Your task to perform on an android device: Search for pizza restaurants on Maps Image 0: 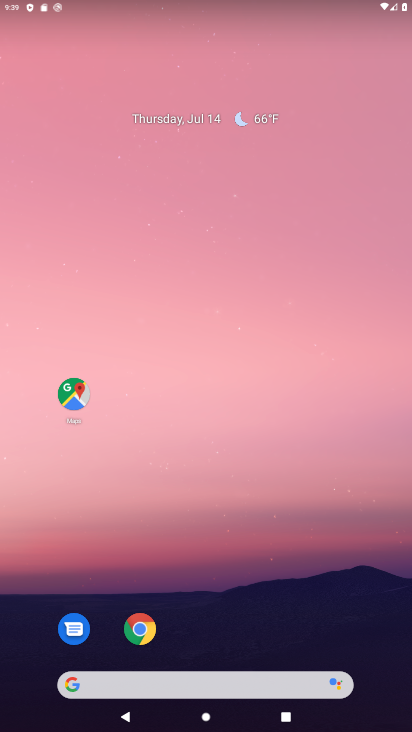
Step 0: click (72, 392)
Your task to perform on an android device: Search for pizza restaurants on Maps Image 1: 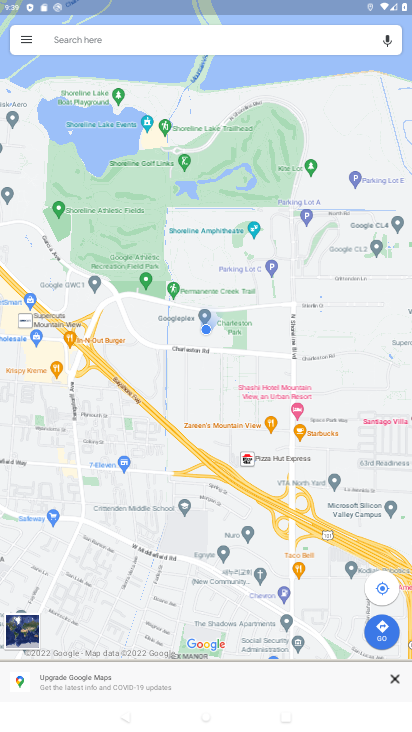
Step 1: click (113, 40)
Your task to perform on an android device: Search for pizza restaurants on Maps Image 2: 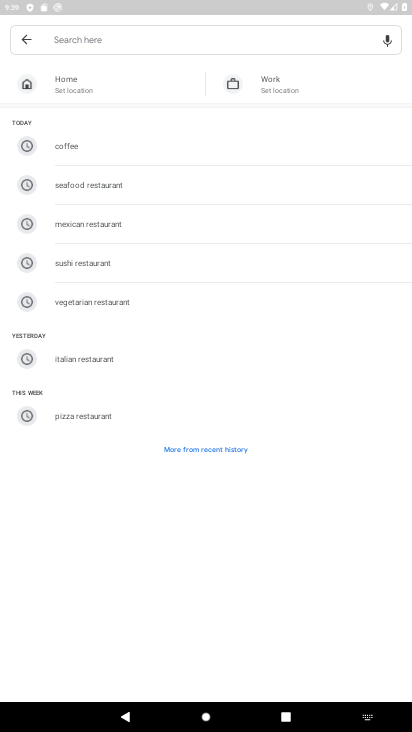
Step 2: type "pizza restaurants"
Your task to perform on an android device: Search for pizza restaurants on Maps Image 3: 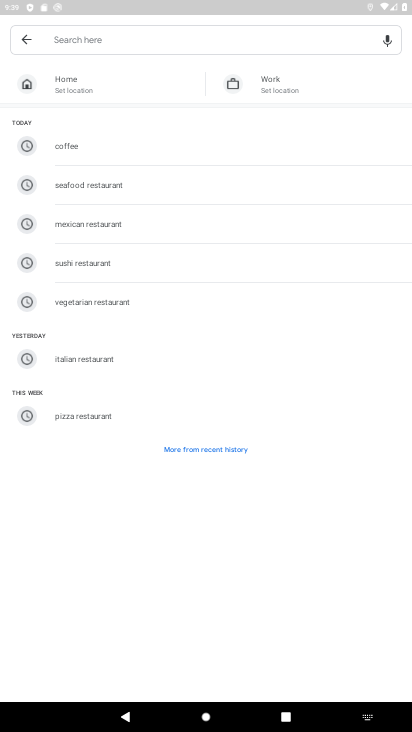
Step 3: click (109, 36)
Your task to perform on an android device: Search for pizza restaurants on Maps Image 4: 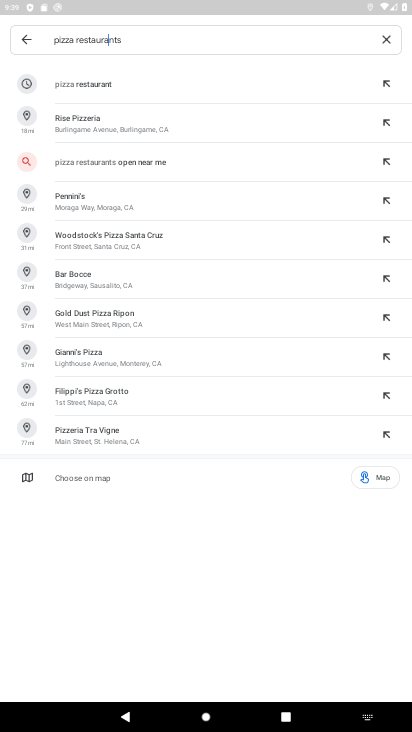
Step 4: click (91, 81)
Your task to perform on an android device: Search for pizza restaurants on Maps Image 5: 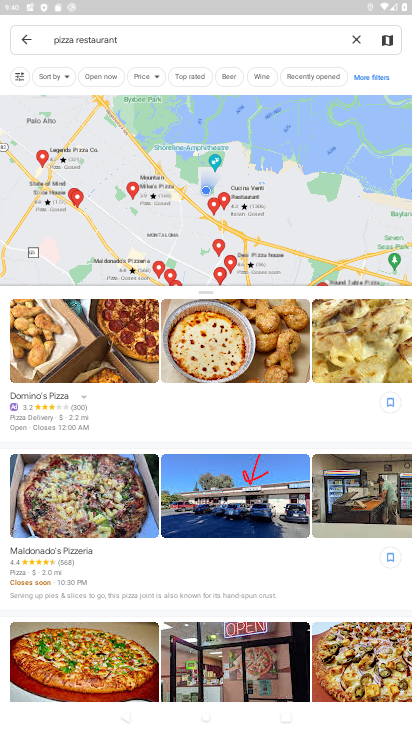
Step 5: task complete